Your task to perform on an android device: open wifi settings Image 0: 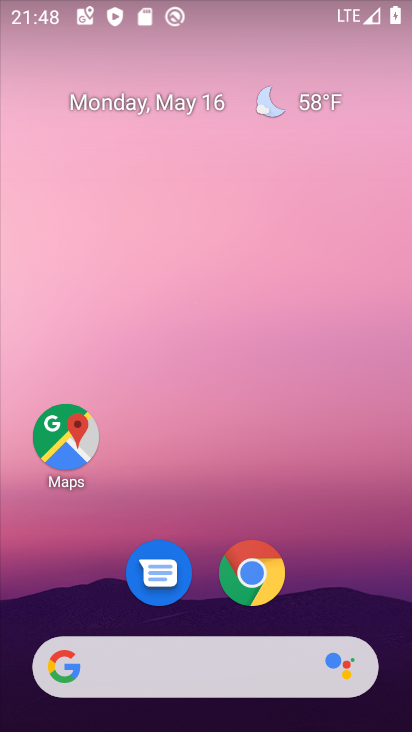
Step 0: drag from (218, 684) to (214, 189)
Your task to perform on an android device: open wifi settings Image 1: 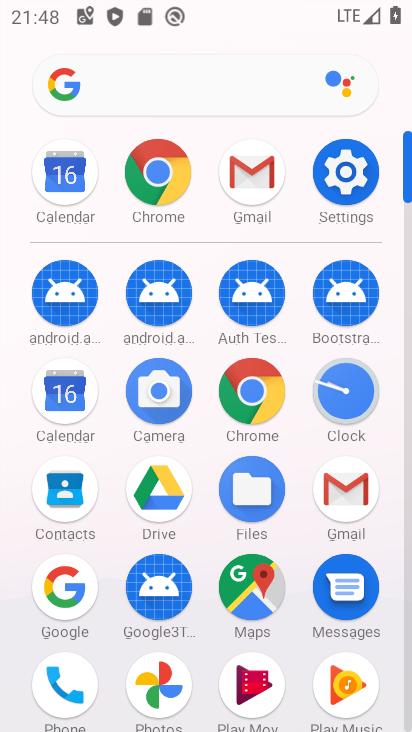
Step 1: click (338, 173)
Your task to perform on an android device: open wifi settings Image 2: 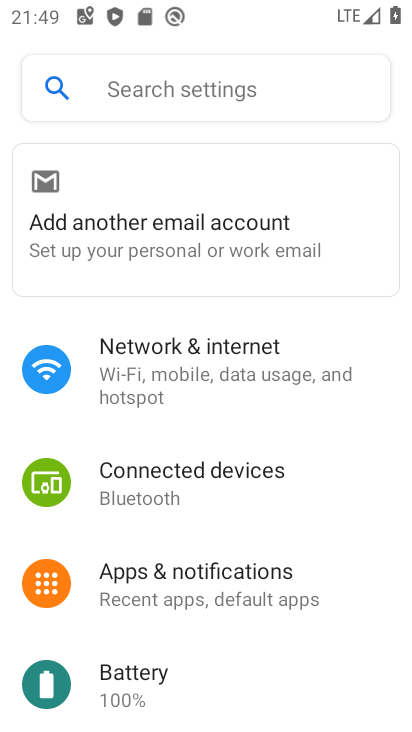
Step 2: click (203, 347)
Your task to perform on an android device: open wifi settings Image 3: 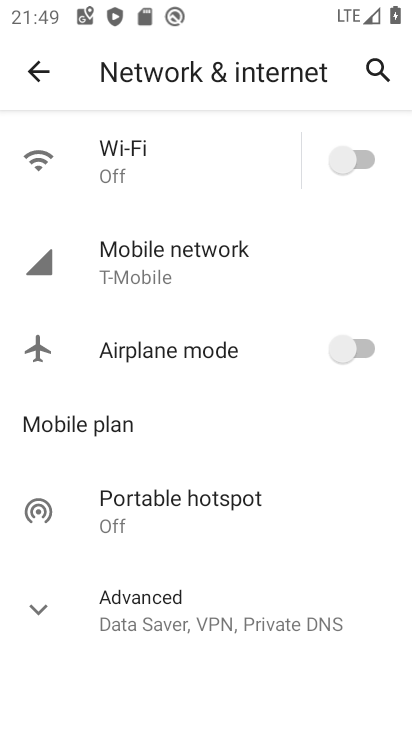
Step 3: click (124, 151)
Your task to perform on an android device: open wifi settings Image 4: 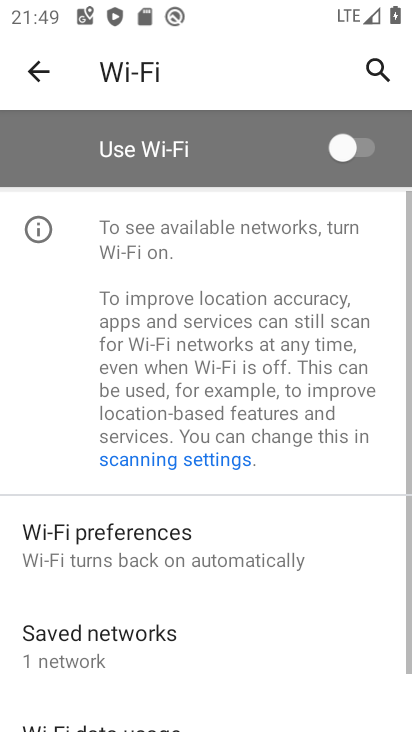
Step 4: task complete